Your task to perform on an android device: turn off data saver in the chrome app Image 0: 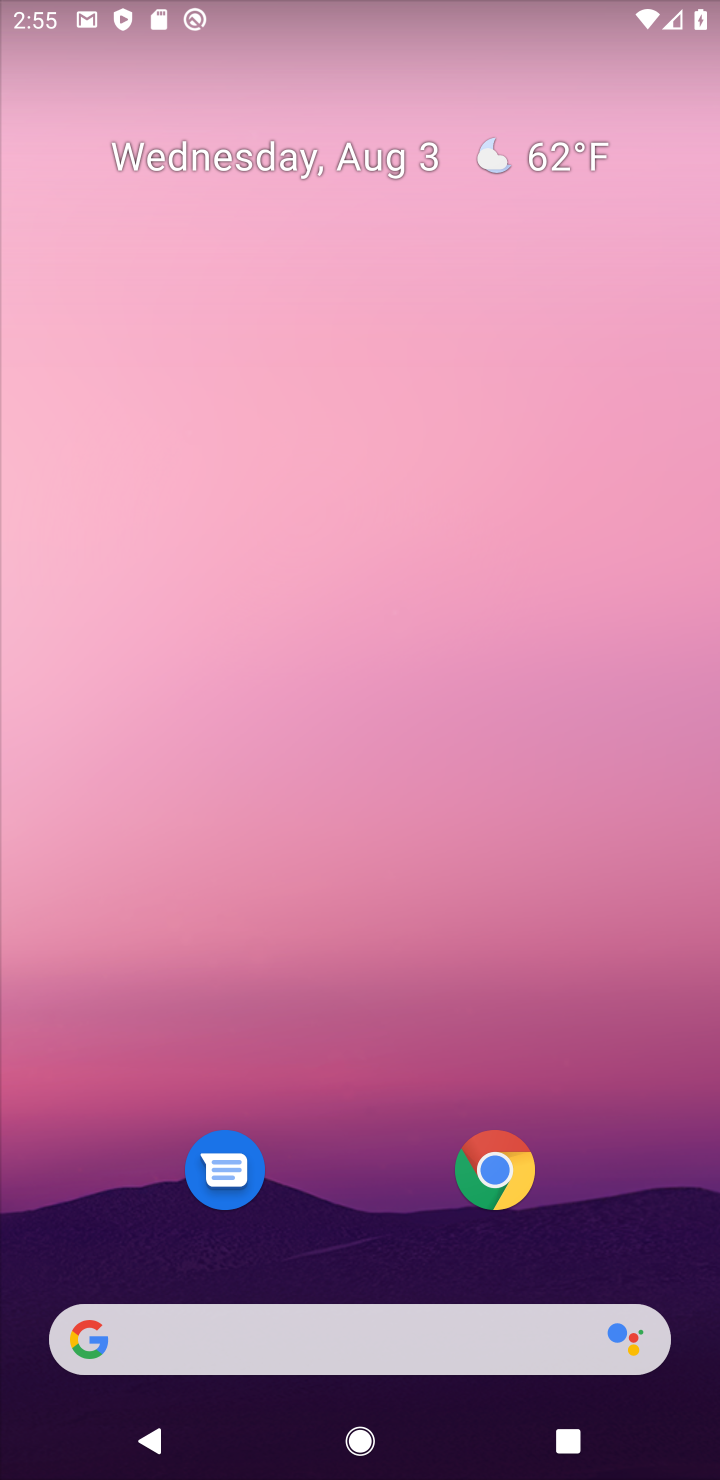
Step 0: click (477, 1182)
Your task to perform on an android device: turn off data saver in the chrome app Image 1: 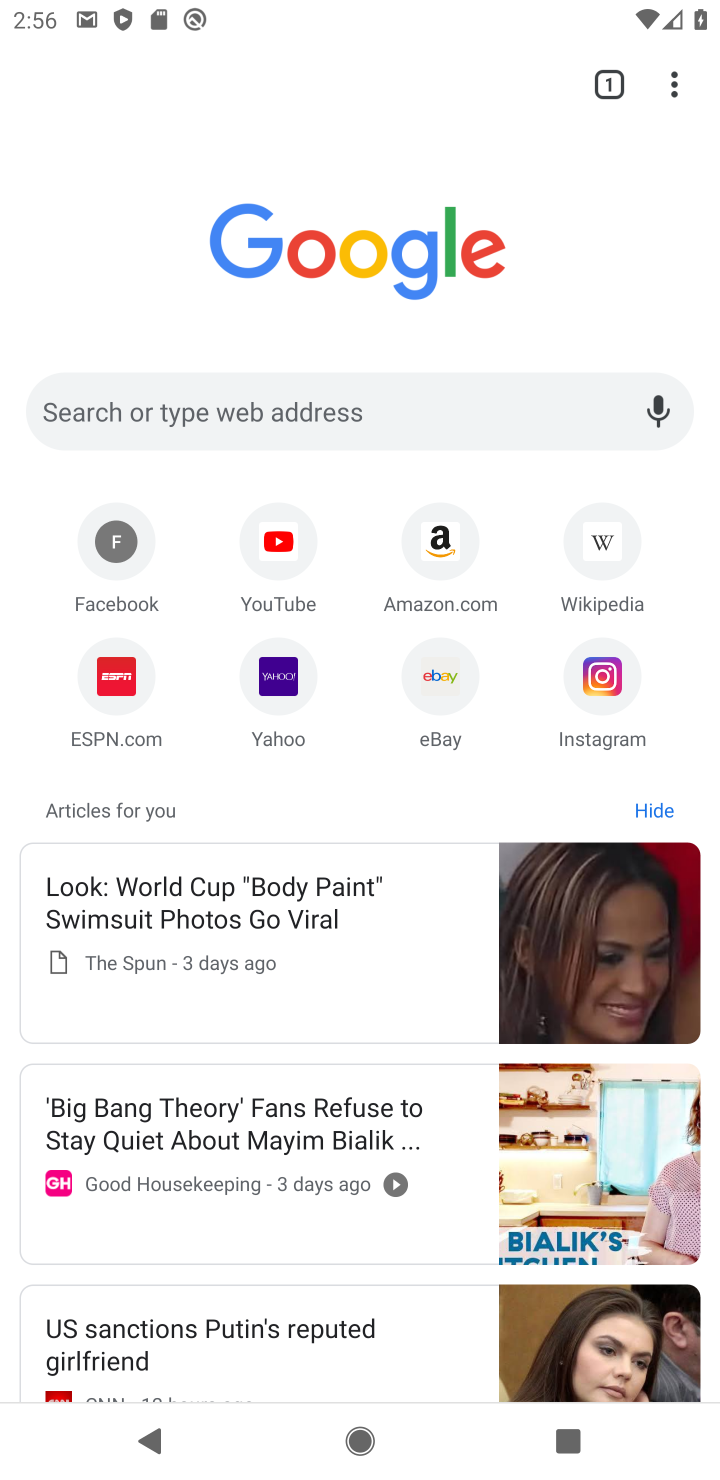
Step 1: click (671, 77)
Your task to perform on an android device: turn off data saver in the chrome app Image 2: 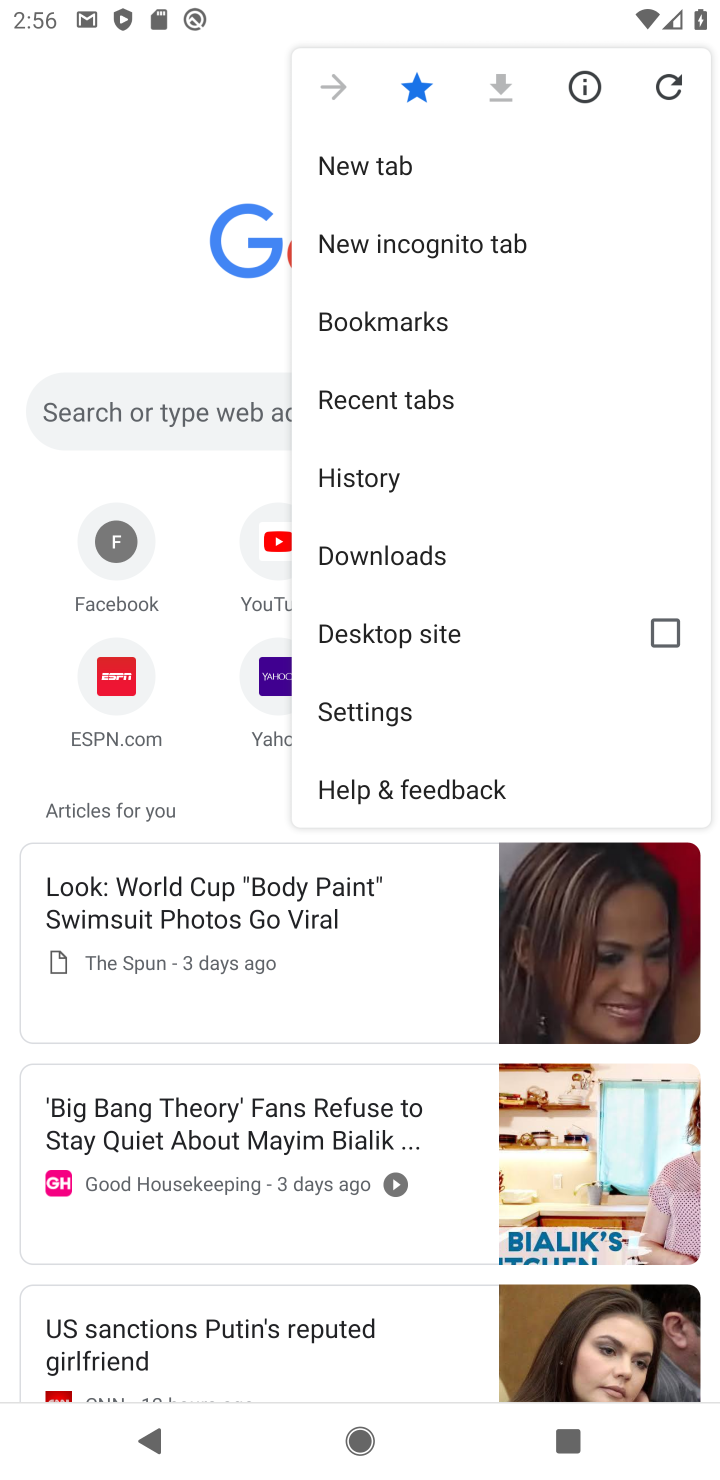
Step 2: click (380, 706)
Your task to perform on an android device: turn off data saver in the chrome app Image 3: 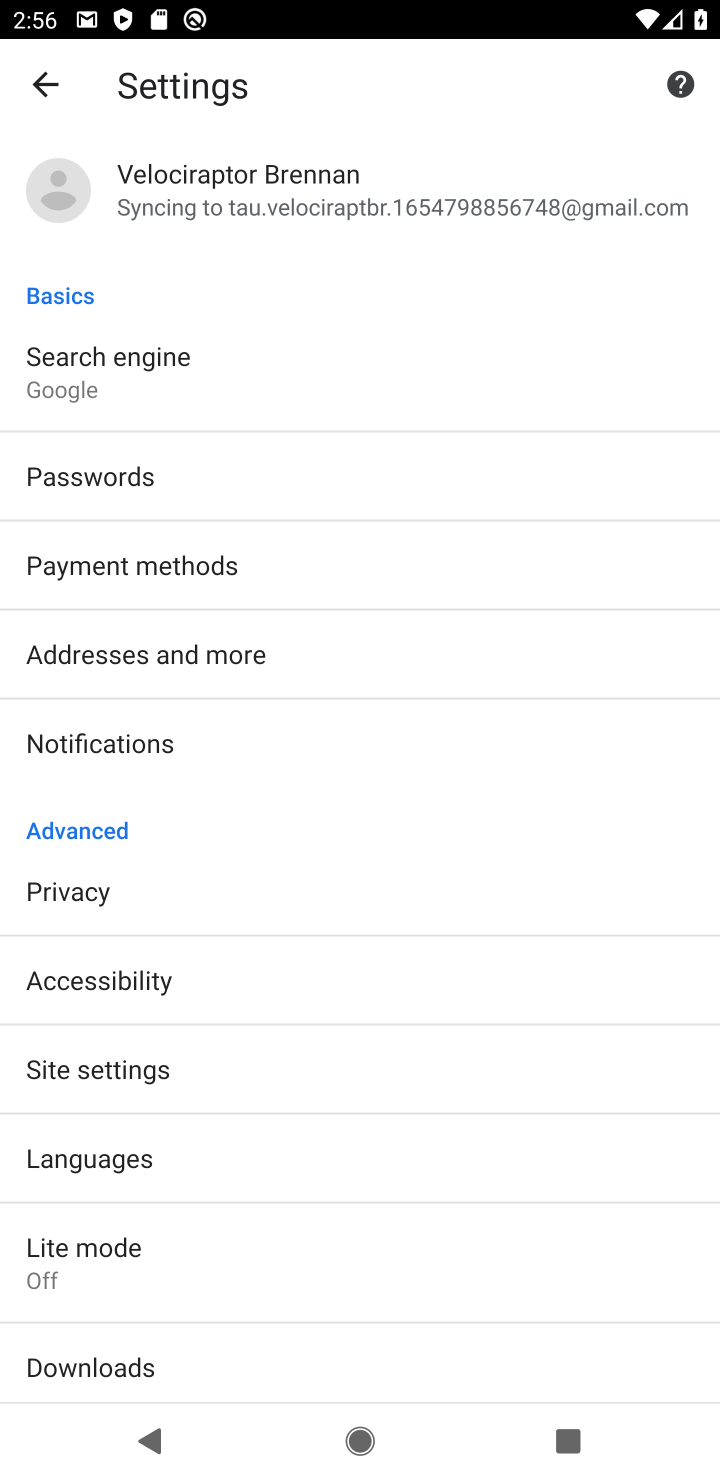
Step 3: click (59, 1271)
Your task to perform on an android device: turn off data saver in the chrome app Image 4: 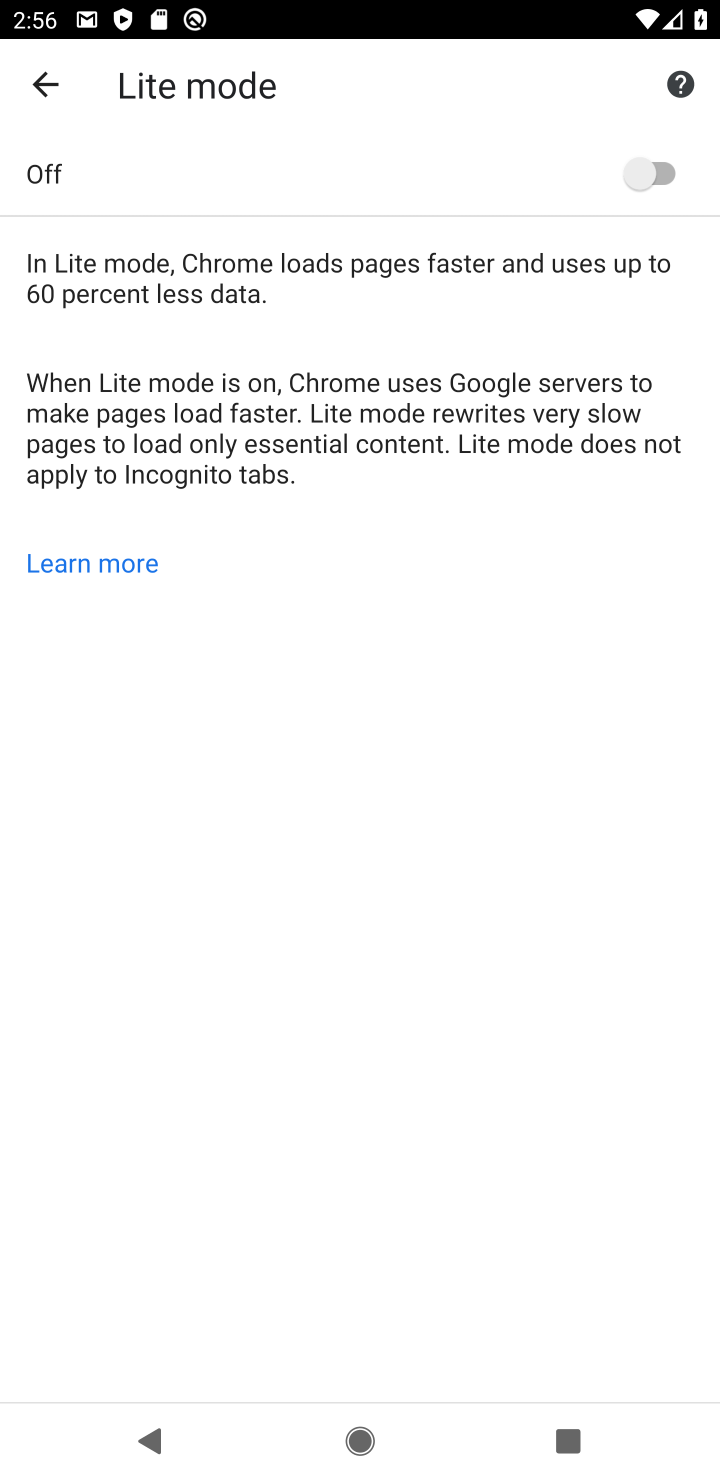
Step 4: task complete